Your task to perform on an android device: turn on showing notifications on the lock screen Image 0: 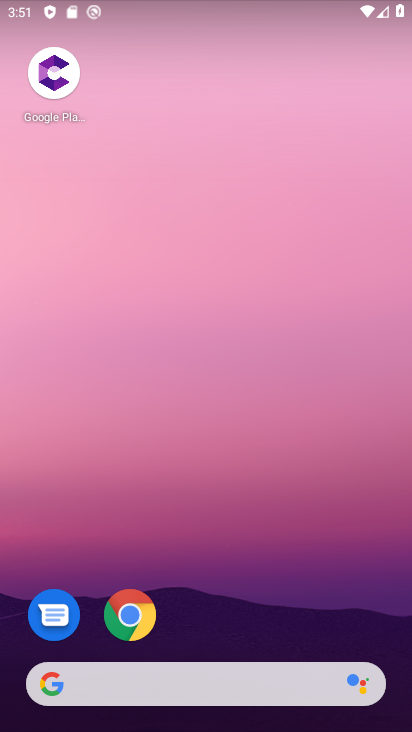
Step 0: drag from (289, 452) to (280, 182)
Your task to perform on an android device: turn on showing notifications on the lock screen Image 1: 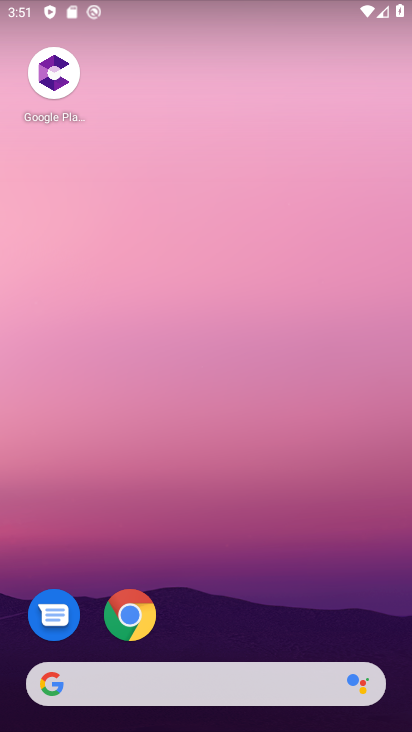
Step 1: drag from (177, 645) to (215, 157)
Your task to perform on an android device: turn on showing notifications on the lock screen Image 2: 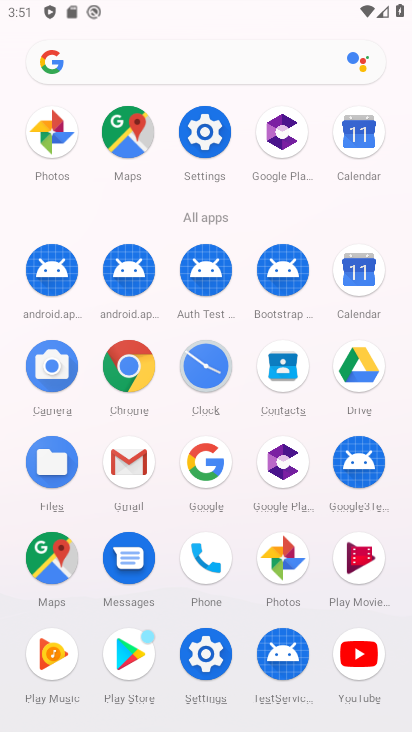
Step 2: click (184, 124)
Your task to perform on an android device: turn on showing notifications on the lock screen Image 3: 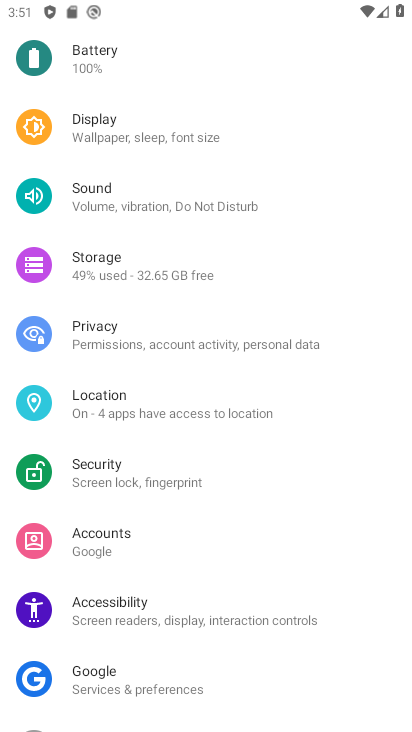
Step 3: drag from (235, 78) to (147, 457)
Your task to perform on an android device: turn on showing notifications on the lock screen Image 4: 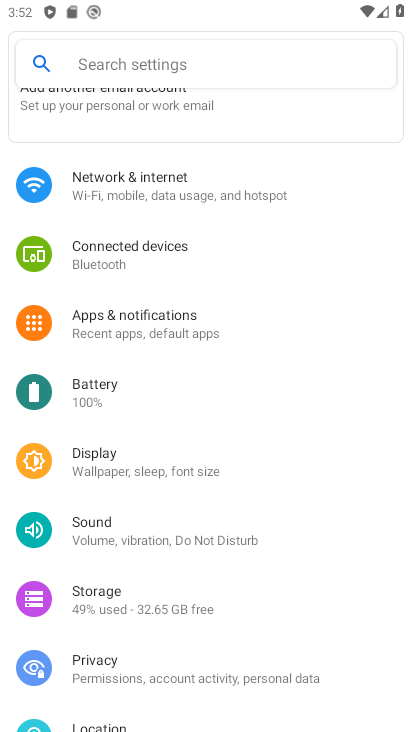
Step 4: click (188, 318)
Your task to perform on an android device: turn on showing notifications on the lock screen Image 5: 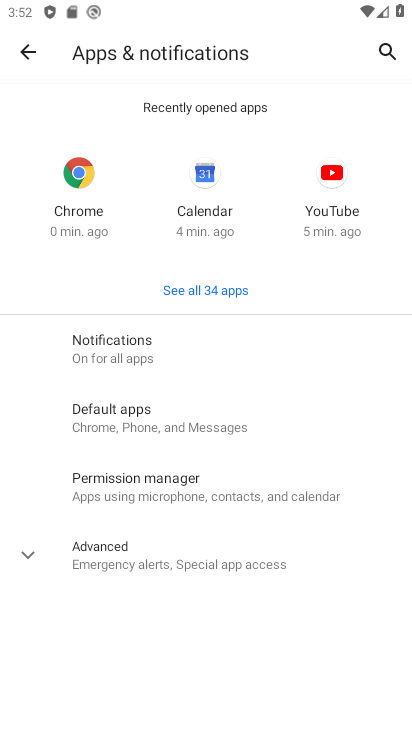
Step 5: click (185, 351)
Your task to perform on an android device: turn on showing notifications on the lock screen Image 6: 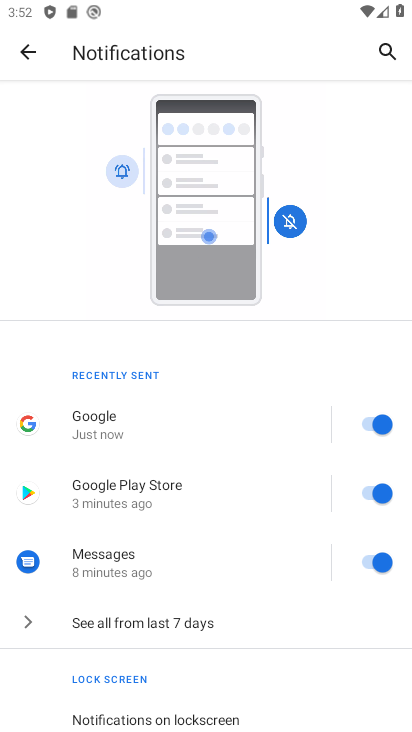
Step 6: click (244, 716)
Your task to perform on an android device: turn on showing notifications on the lock screen Image 7: 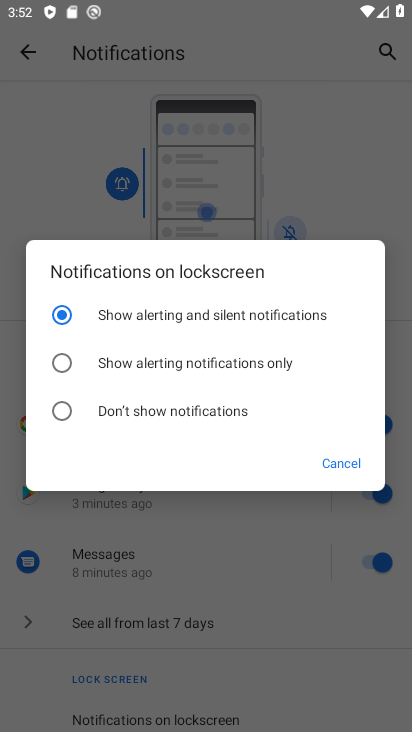
Step 7: task complete